Your task to perform on an android device: Check the weather Image 0: 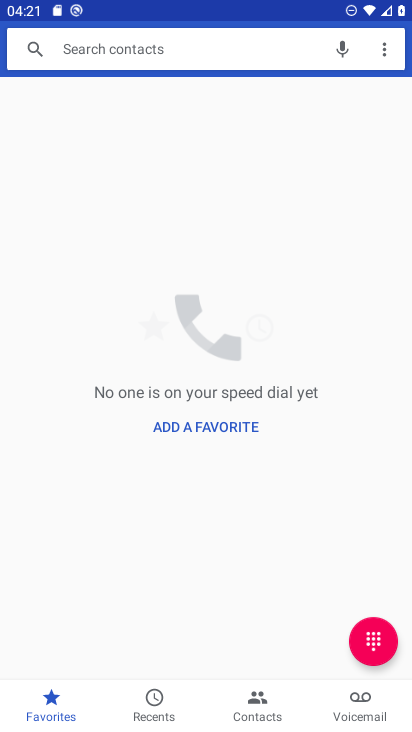
Step 0: press home button
Your task to perform on an android device: Check the weather Image 1: 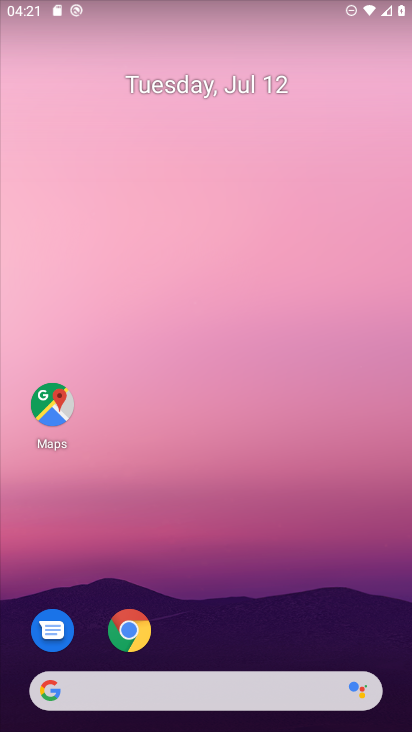
Step 1: drag from (2, 232) to (409, 257)
Your task to perform on an android device: Check the weather Image 2: 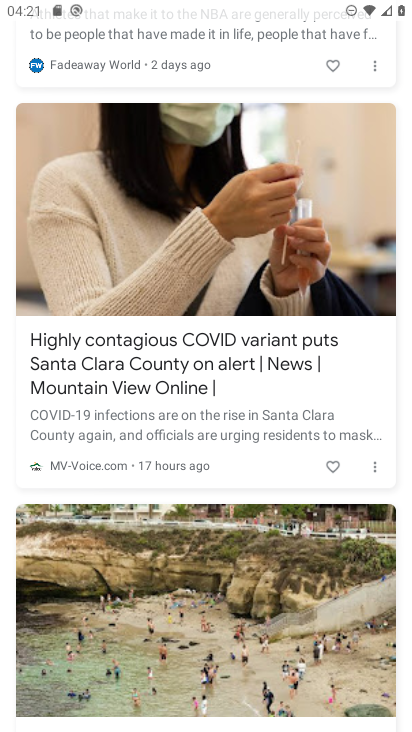
Step 2: drag from (204, 87) to (223, 416)
Your task to perform on an android device: Check the weather Image 3: 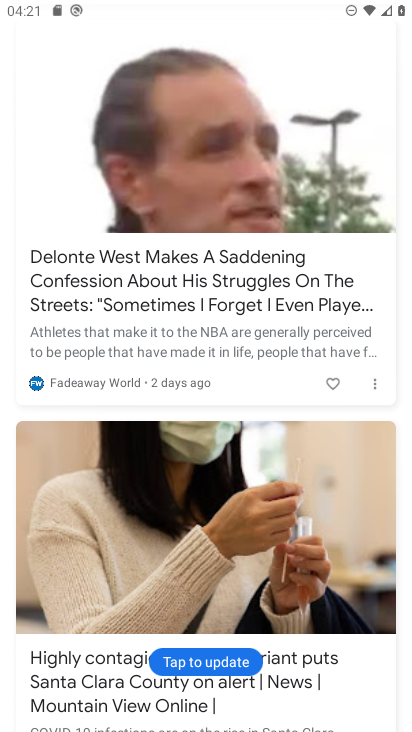
Step 3: drag from (251, 110) to (272, 507)
Your task to perform on an android device: Check the weather Image 4: 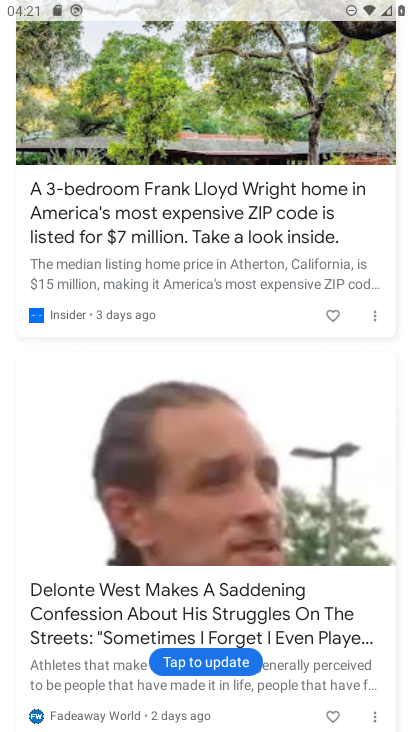
Step 4: drag from (251, 103) to (233, 382)
Your task to perform on an android device: Check the weather Image 5: 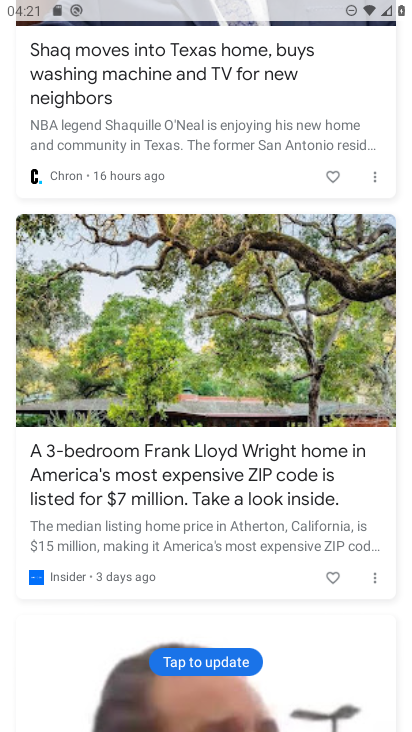
Step 5: click (193, 667)
Your task to perform on an android device: Check the weather Image 6: 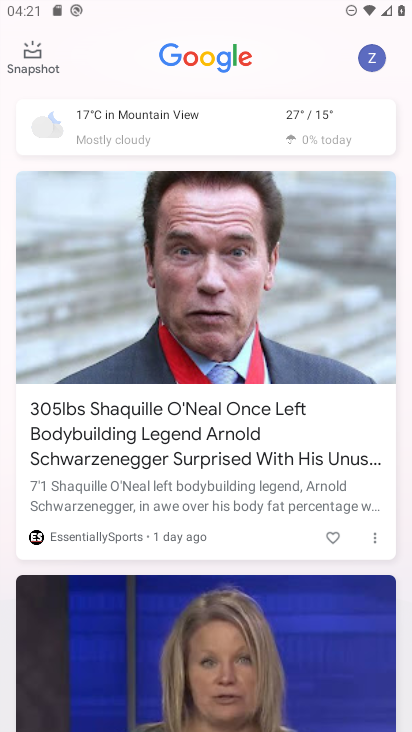
Step 6: click (308, 104)
Your task to perform on an android device: Check the weather Image 7: 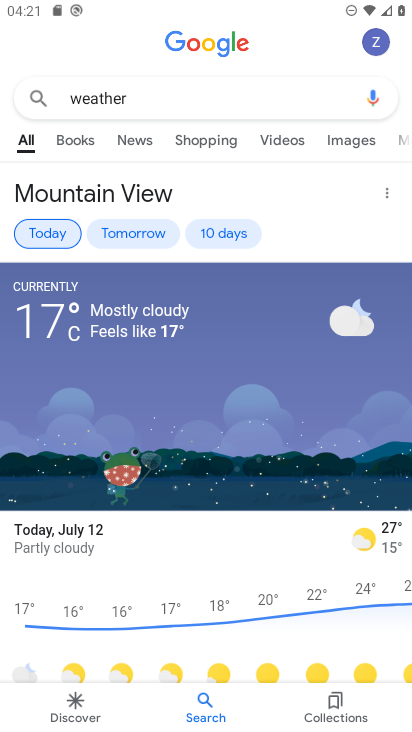
Step 7: task complete